Your task to perform on an android device: clear history in the chrome app Image 0: 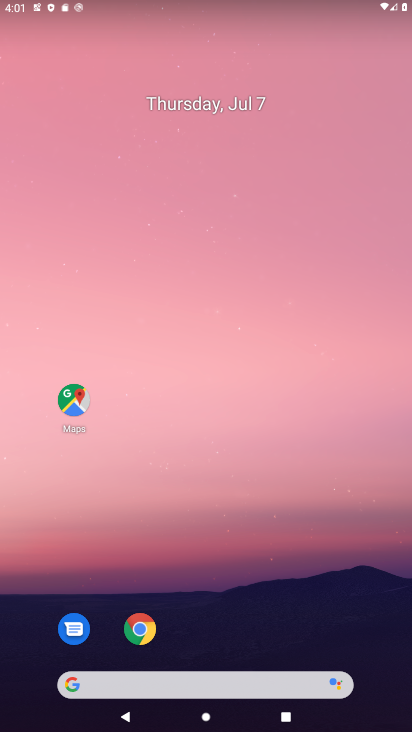
Step 0: drag from (271, 639) to (258, 201)
Your task to perform on an android device: clear history in the chrome app Image 1: 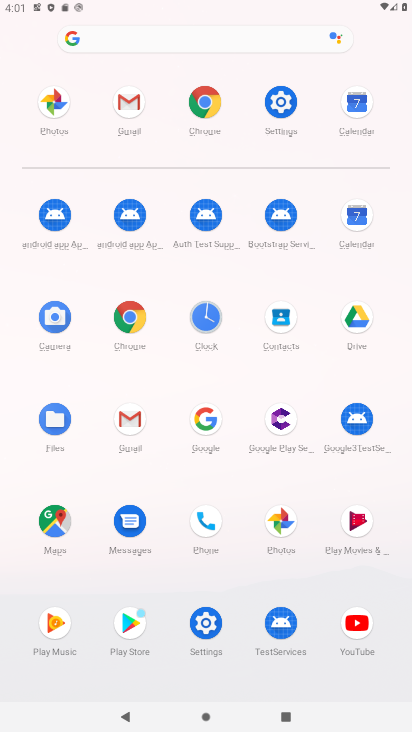
Step 1: click (191, 98)
Your task to perform on an android device: clear history in the chrome app Image 2: 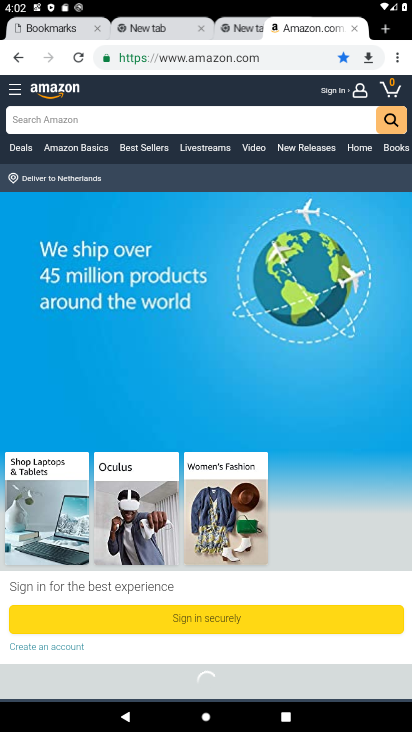
Step 2: click (395, 58)
Your task to perform on an android device: clear history in the chrome app Image 3: 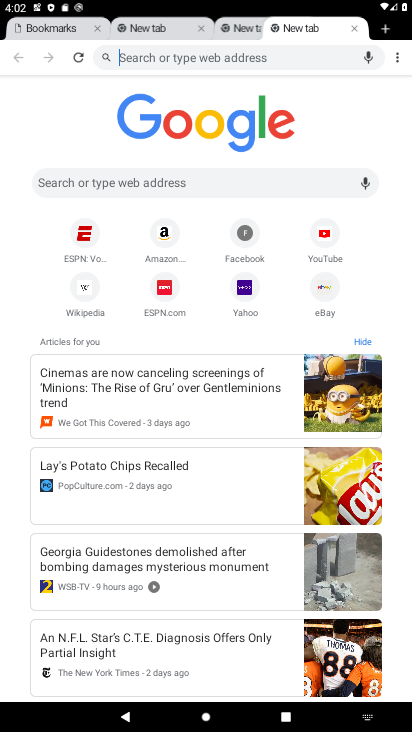
Step 3: click (398, 53)
Your task to perform on an android device: clear history in the chrome app Image 4: 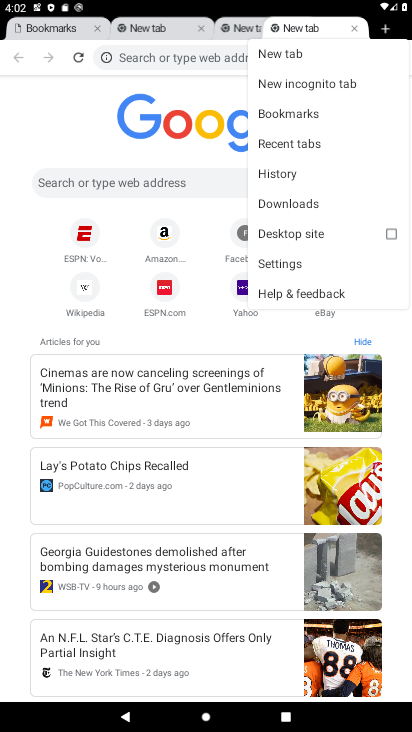
Step 4: click (290, 263)
Your task to perform on an android device: clear history in the chrome app Image 5: 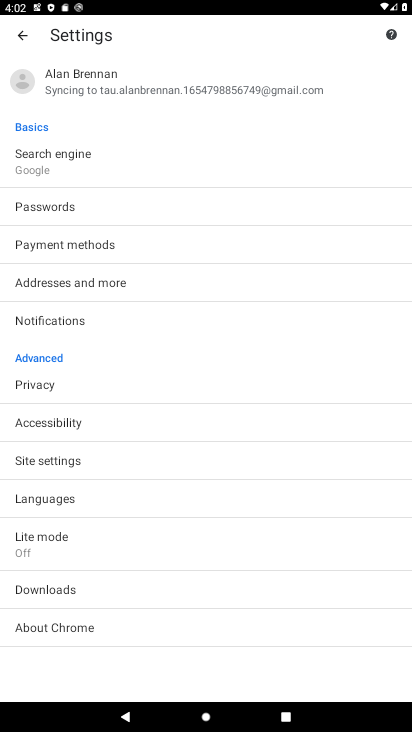
Step 5: drag from (92, 600) to (145, 180)
Your task to perform on an android device: clear history in the chrome app Image 6: 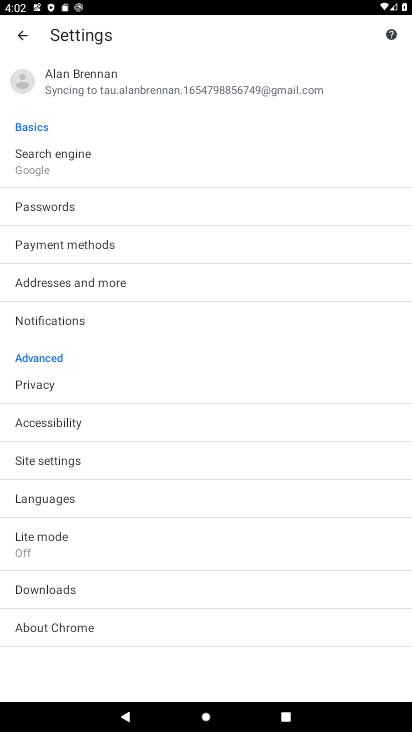
Step 6: drag from (120, 197) to (127, 611)
Your task to perform on an android device: clear history in the chrome app Image 7: 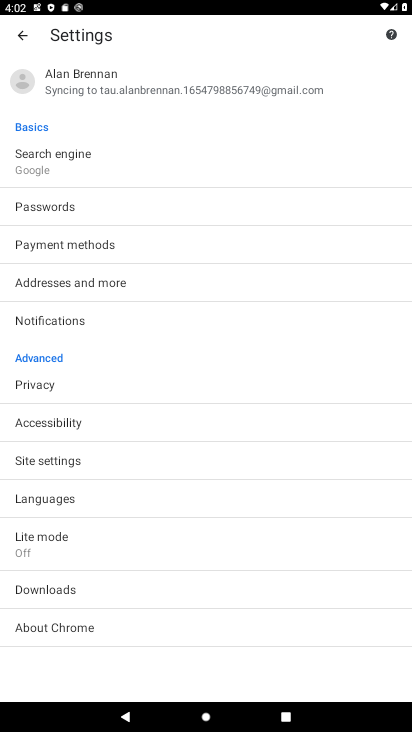
Step 7: click (28, 34)
Your task to perform on an android device: clear history in the chrome app Image 8: 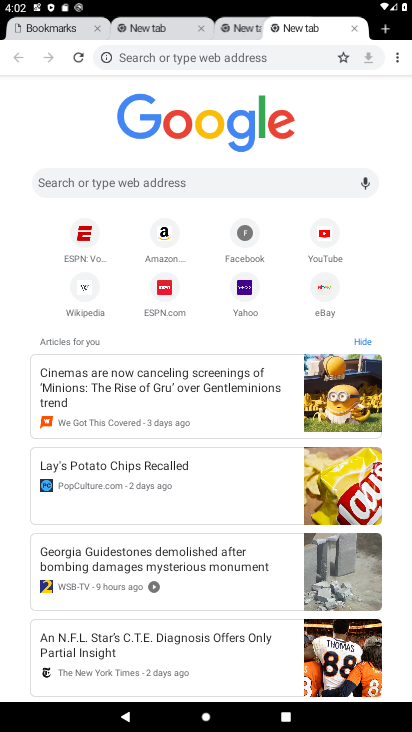
Step 8: click (395, 50)
Your task to perform on an android device: clear history in the chrome app Image 9: 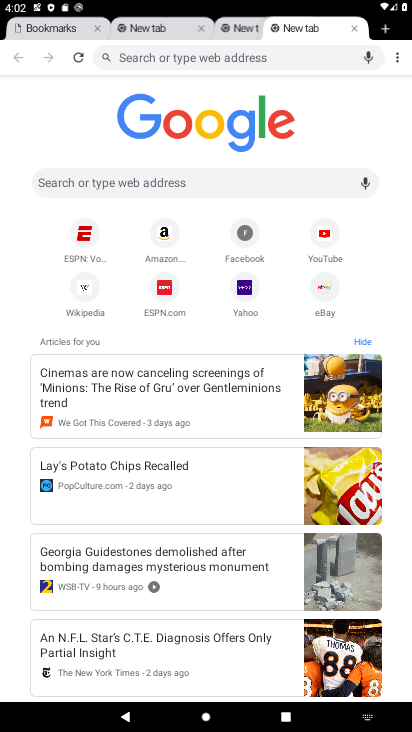
Step 9: click (396, 55)
Your task to perform on an android device: clear history in the chrome app Image 10: 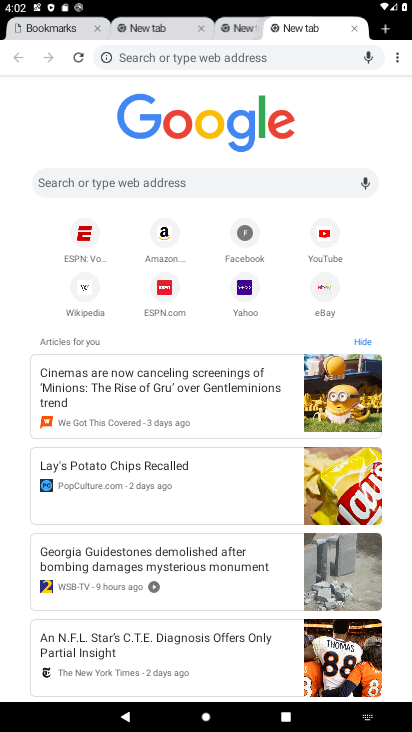
Step 10: click (396, 55)
Your task to perform on an android device: clear history in the chrome app Image 11: 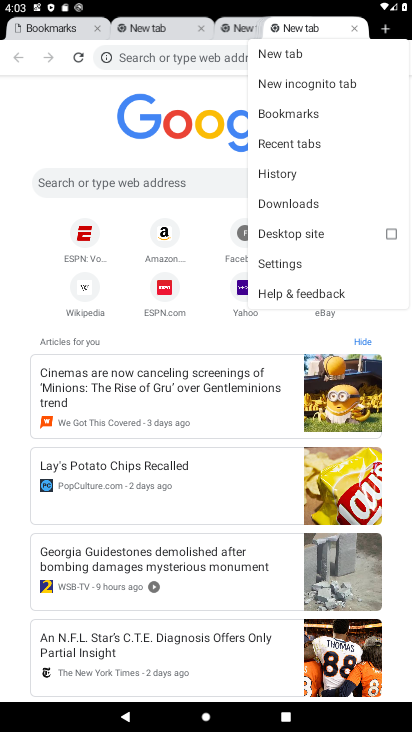
Step 11: click (280, 262)
Your task to perform on an android device: clear history in the chrome app Image 12: 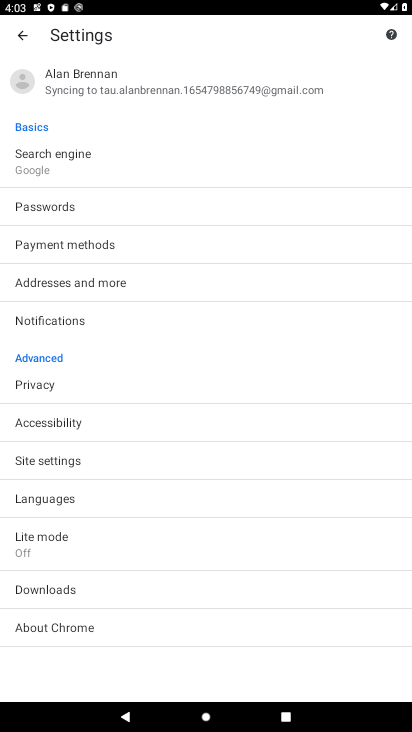
Step 12: drag from (158, 477) to (204, 158)
Your task to perform on an android device: clear history in the chrome app Image 13: 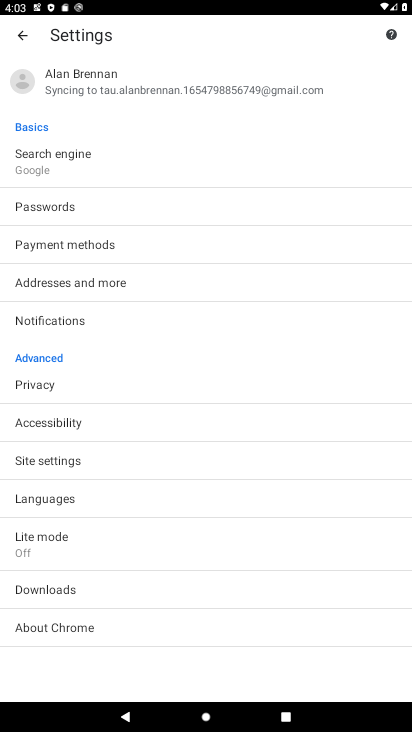
Step 13: click (23, 35)
Your task to perform on an android device: clear history in the chrome app Image 14: 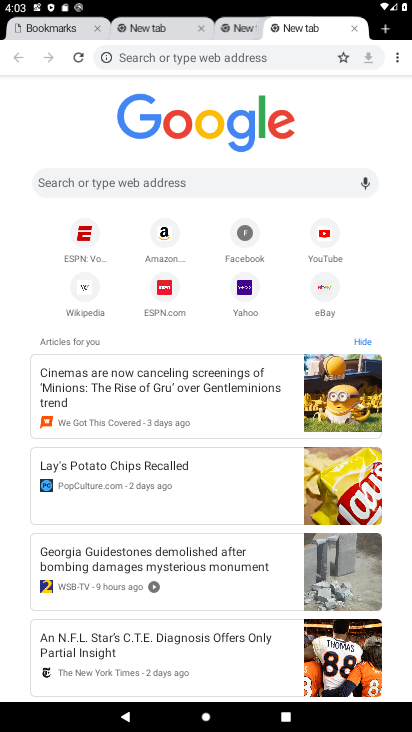
Step 14: click (23, 35)
Your task to perform on an android device: clear history in the chrome app Image 15: 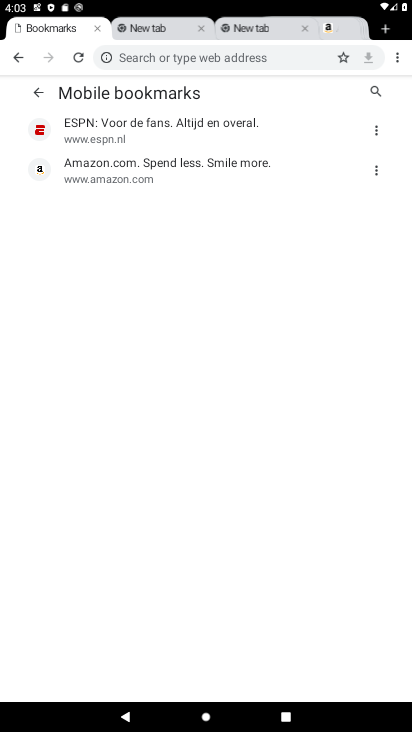
Step 15: click (389, 49)
Your task to perform on an android device: clear history in the chrome app Image 16: 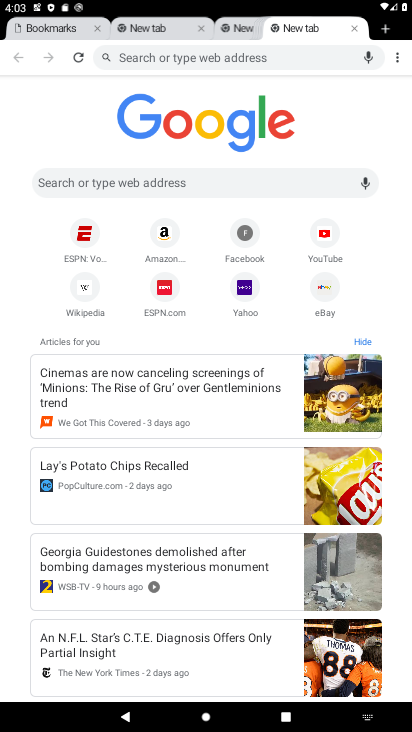
Step 16: click (407, 48)
Your task to perform on an android device: clear history in the chrome app Image 17: 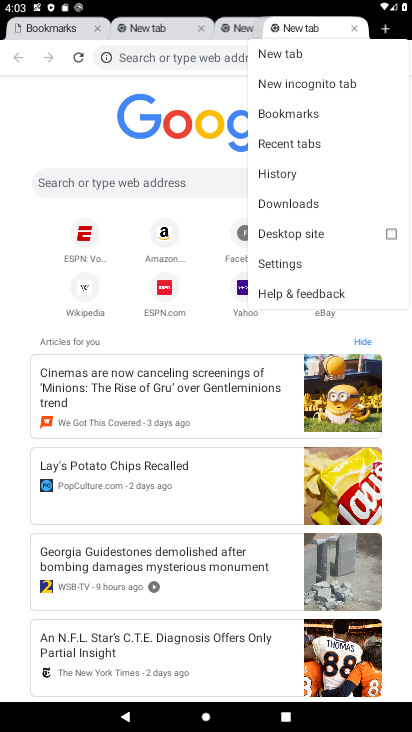
Step 17: click (301, 174)
Your task to perform on an android device: clear history in the chrome app Image 18: 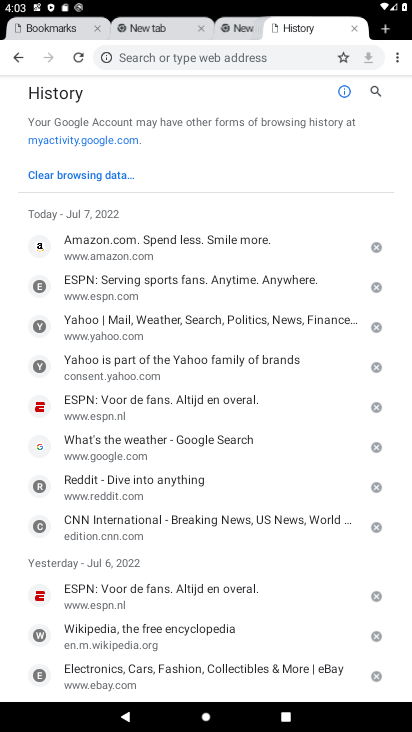
Step 18: click (114, 179)
Your task to perform on an android device: clear history in the chrome app Image 19: 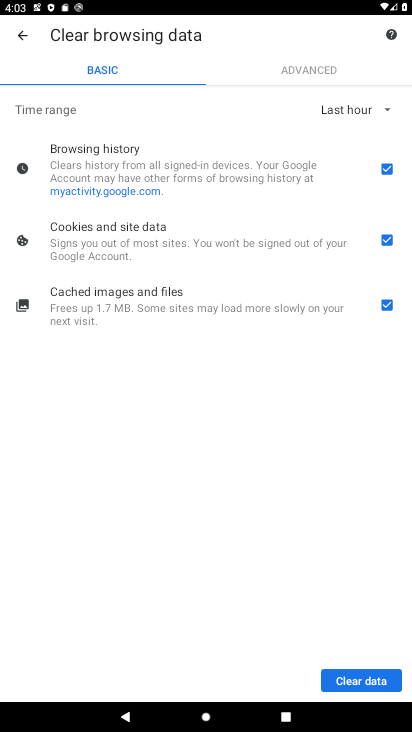
Step 19: click (357, 686)
Your task to perform on an android device: clear history in the chrome app Image 20: 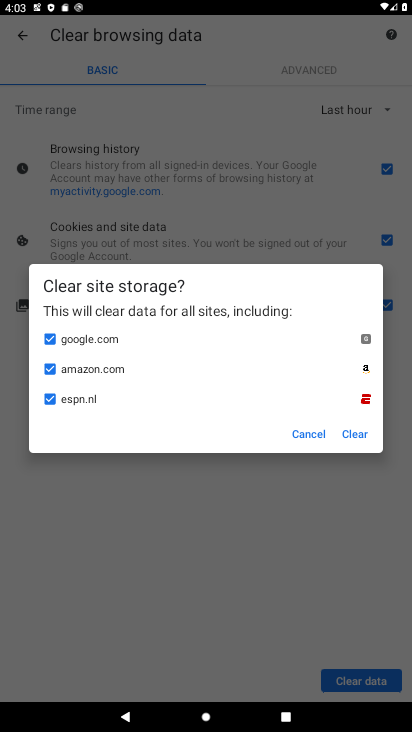
Step 20: click (353, 434)
Your task to perform on an android device: clear history in the chrome app Image 21: 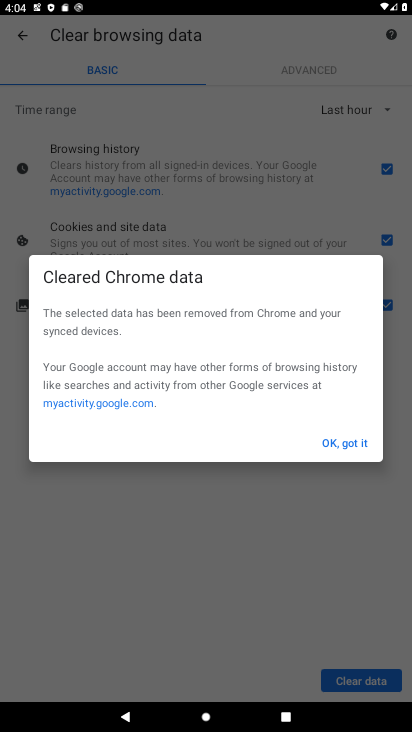
Step 21: task complete